Your task to perform on an android device: delete a single message in the gmail app Image 0: 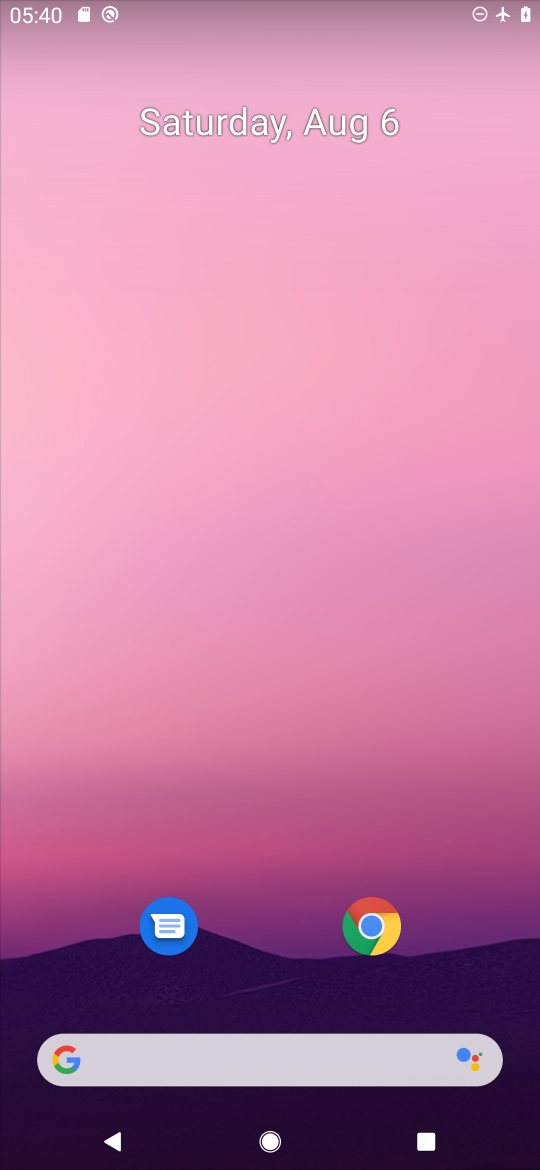
Step 0: drag from (228, 966) to (232, 201)
Your task to perform on an android device: delete a single message in the gmail app Image 1: 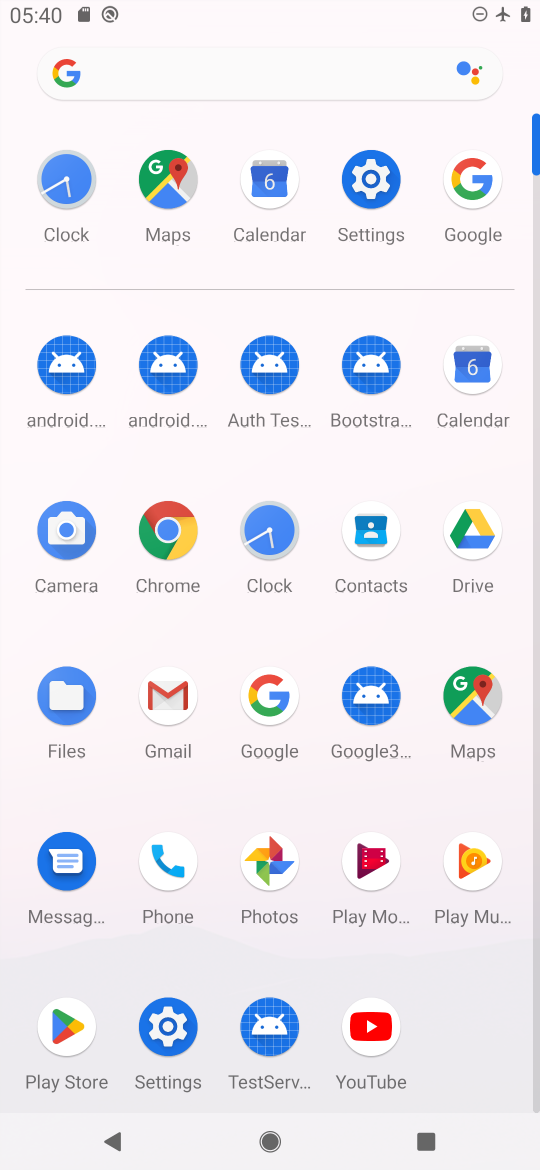
Step 1: click (154, 714)
Your task to perform on an android device: delete a single message in the gmail app Image 2: 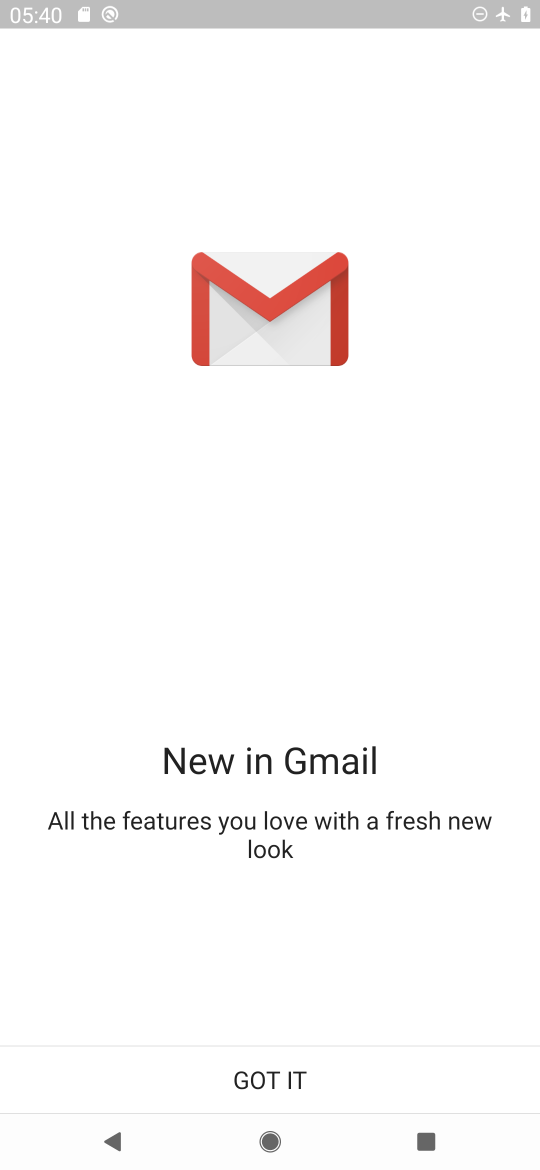
Step 2: click (319, 1069)
Your task to perform on an android device: delete a single message in the gmail app Image 3: 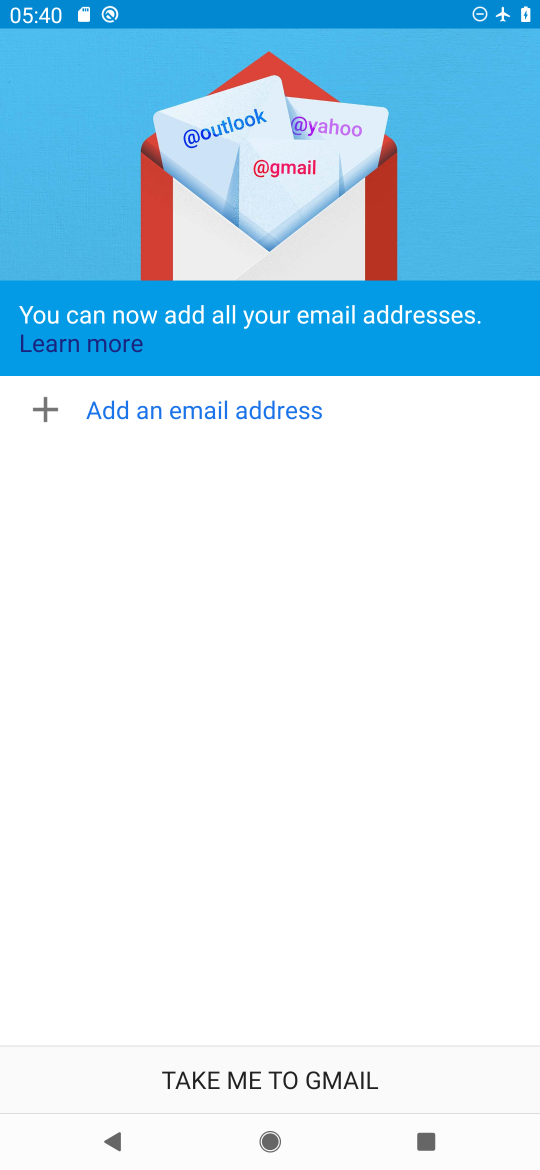
Step 3: task complete